Your task to perform on an android device: open app "Fetch Rewards" (install if not already installed) Image 0: 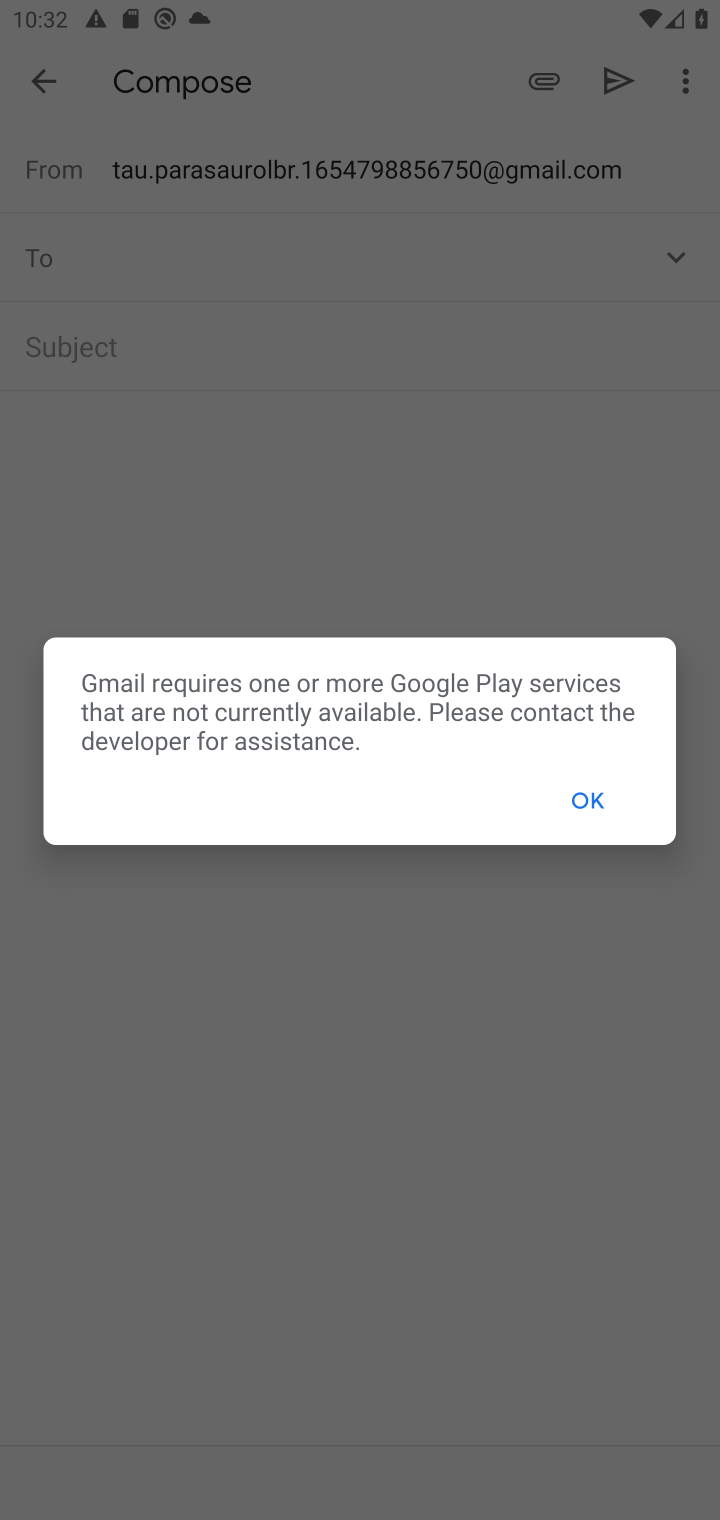
Step 0: press home button
Your task to perform on an android device: open app "Fetch Rewards" (install if not already installed) Image 1: 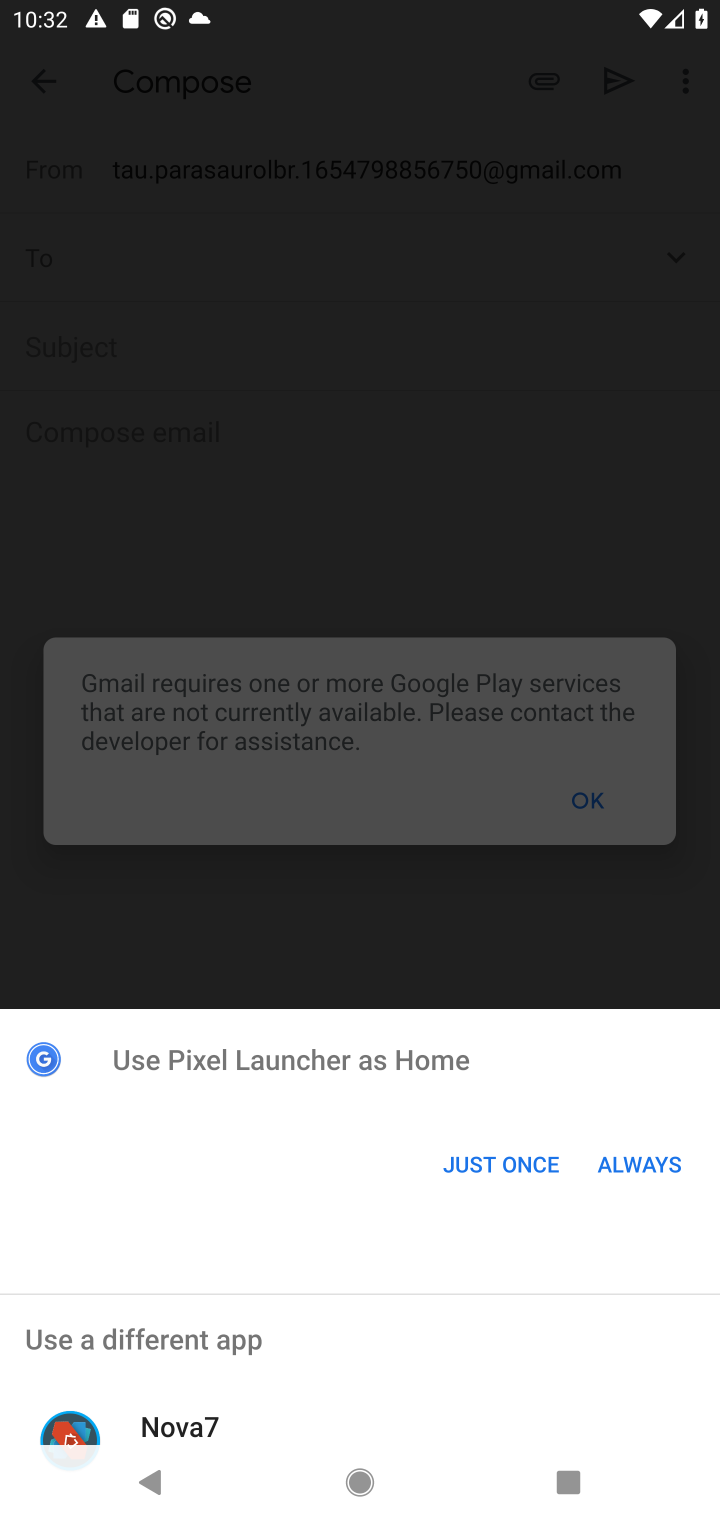
Step 1: click (544, 1157)
Your task to perform on an android device: open app "Fetch Rewards" (install if not already installed) Image 2: 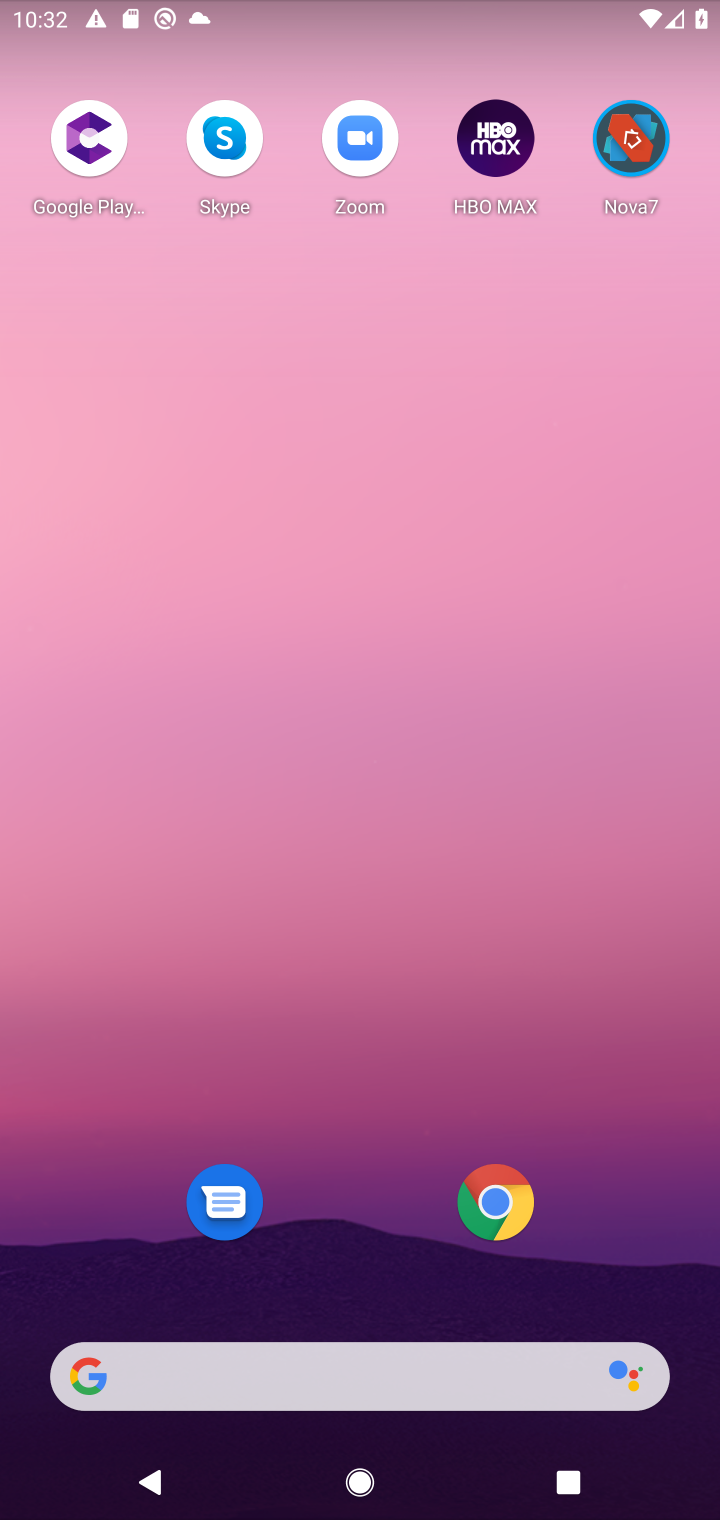
Step 2: click (395, 1377)
Your task to perform on an android device: open app "Fetch Rewards" (install if not already installed) Image 3: 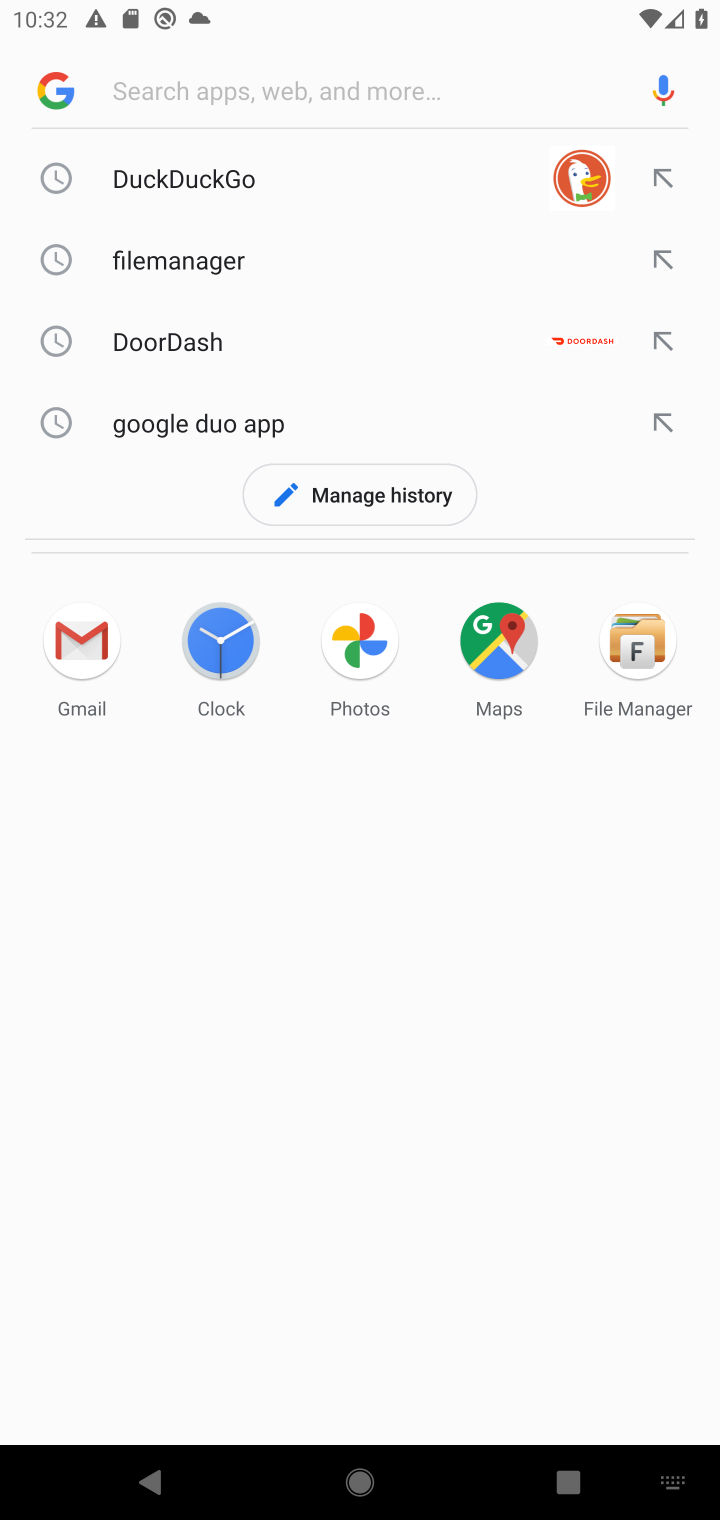
Step 3: type "tech Reward"
Your task to perform on an android device: open app "Fetch Rewards" (install if not already installed) Image 4: 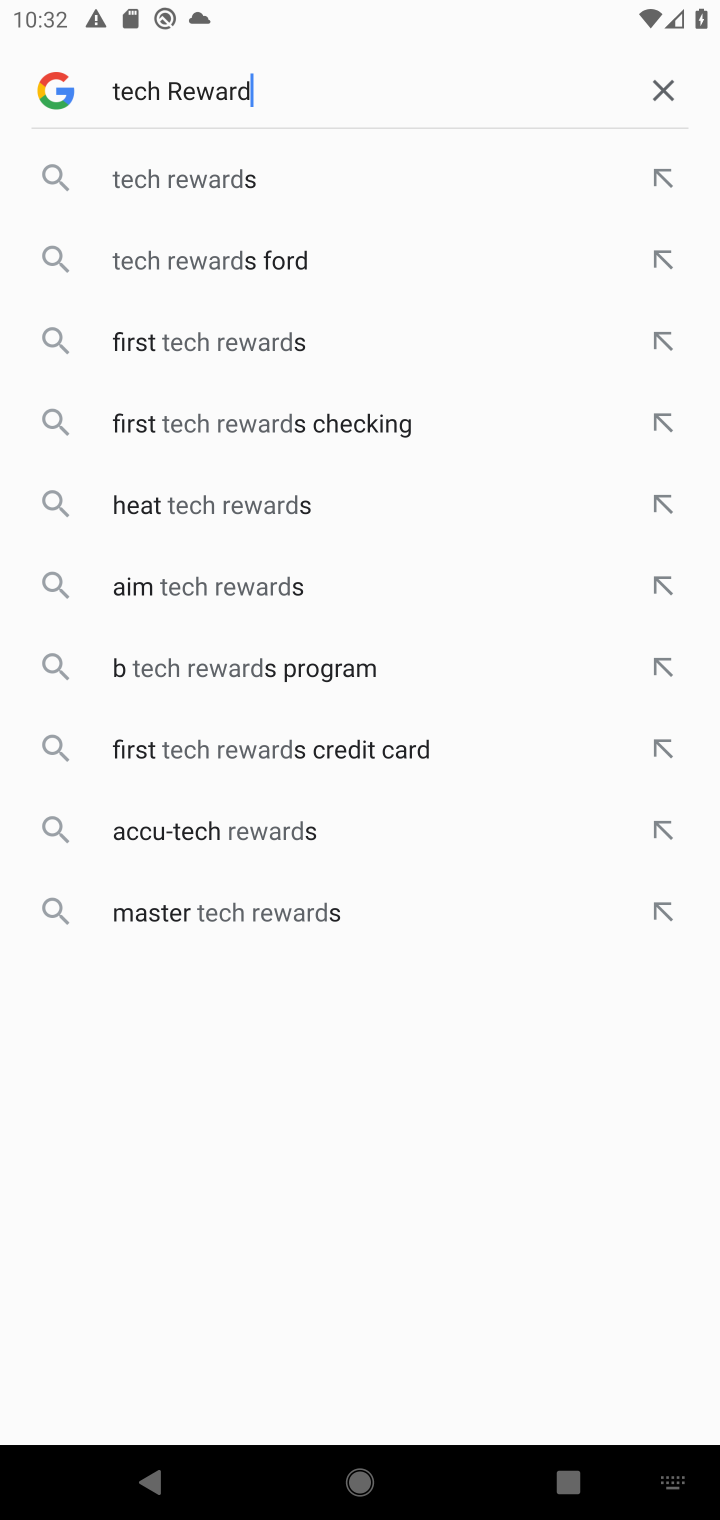
Step 4: click (310, 264)
Your task to perform on an android device: open app "Fetch Rewards" (install if not already installed) Image 5: 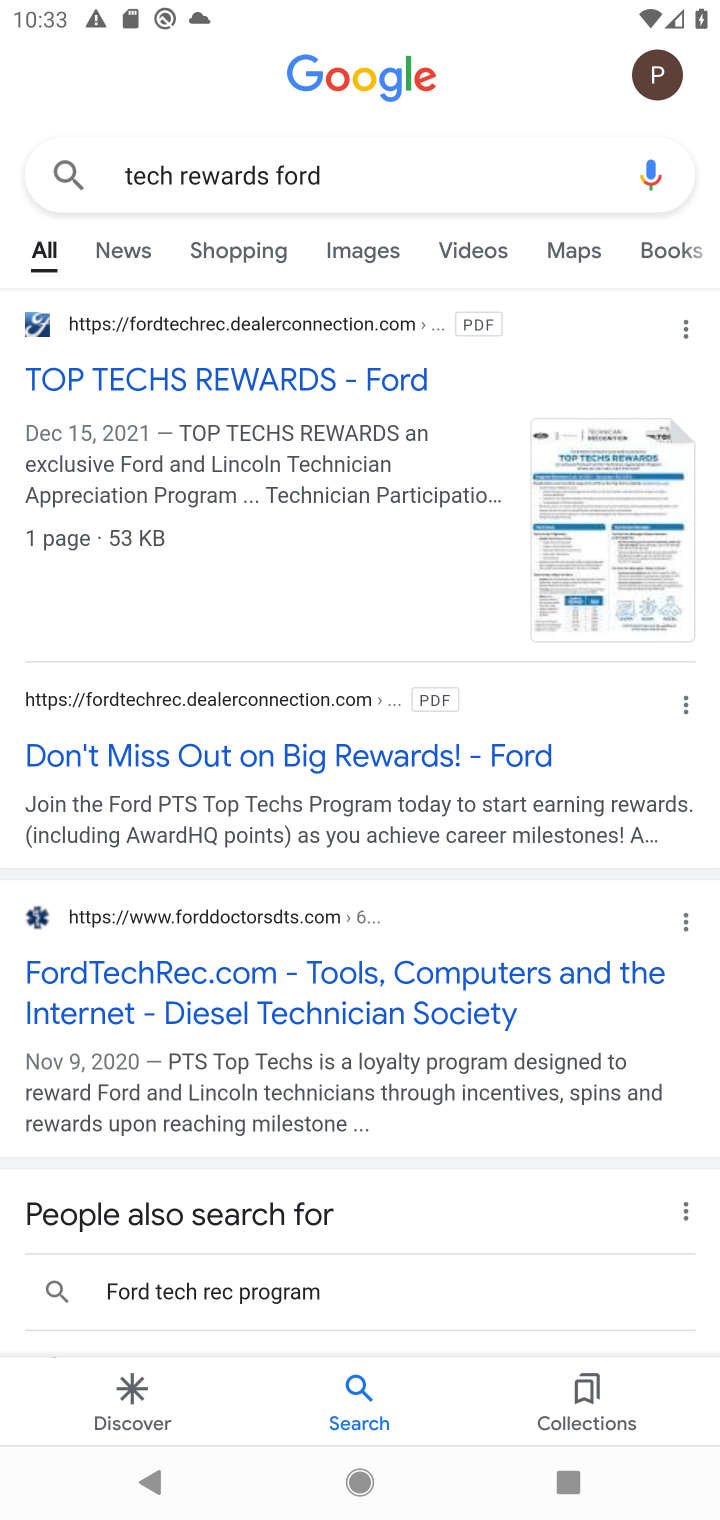
Step 5: task complete